Your task to perform on an android device: Search for Italian restaurants on Maps Image 0: 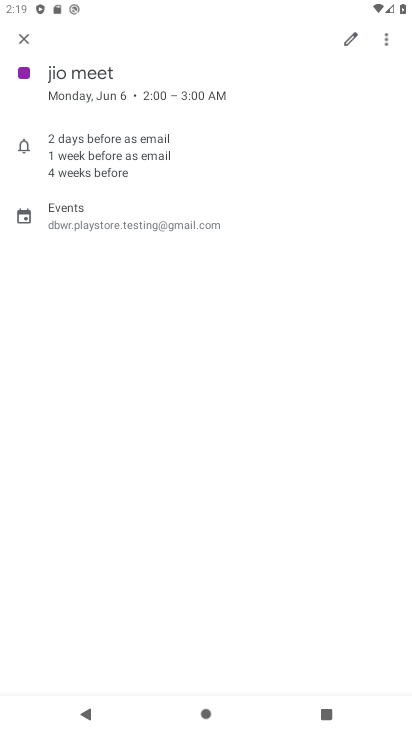
Step 0: press home button
Your task to perform on an android device: Search for Italian restaurants on Maps Image 1: 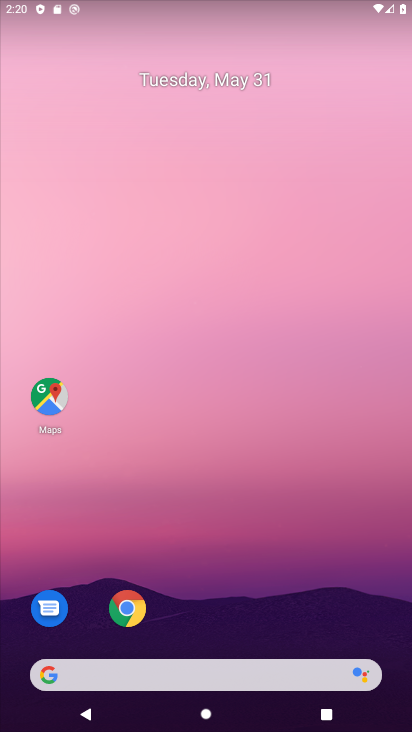
Step 1: click (55, 399)
Your task to perform on an android device: Search for Italian restaurants on Maps Image 2: 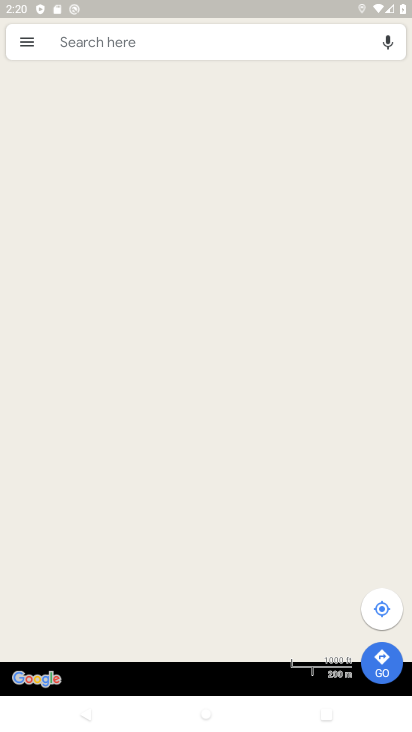
Step 2: click (206, 38)
Your task to perform on an android device: Search for Italian restaurants on Maps Image 3: 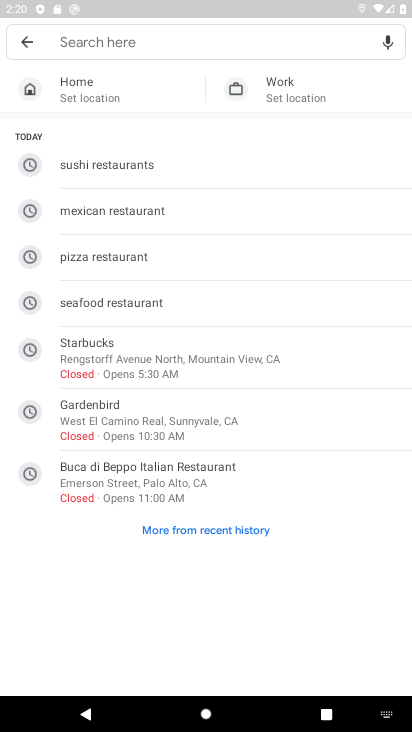
Step 3: type "italian restaurants"
Your task to perform on an android device: Search for Italian restaurants on Maps Image 4: 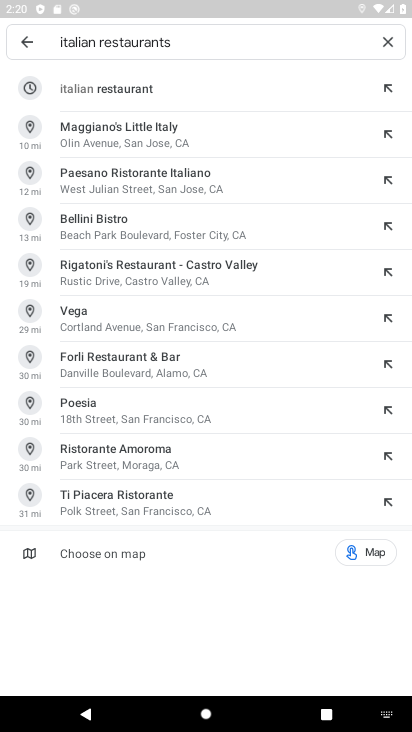
Step 4: click (163, 106)
Your task to perform on an android device: Search for Italian restaurants on Maps Image 5: 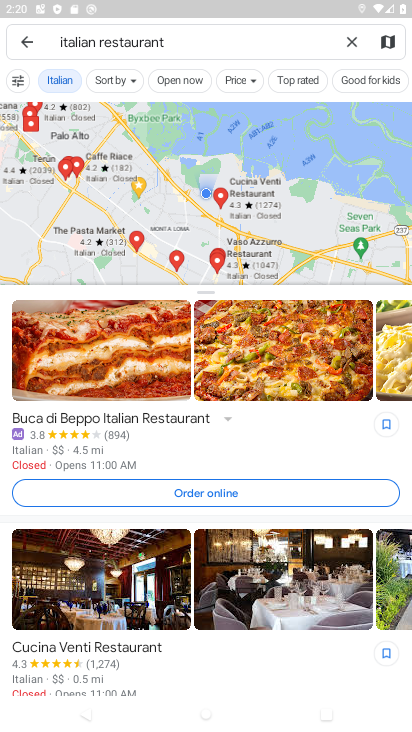
Step 5: task complete